Your task to perform on an android device: Set the phone to "Do not disturb". Image 0: 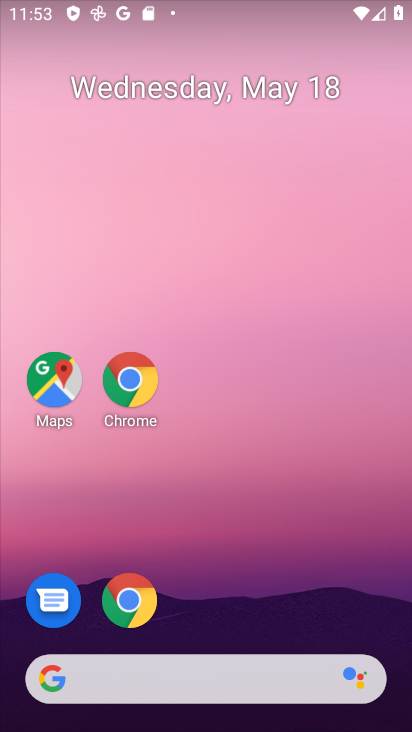
Step 0: drag from (303, 589) to (139, 155)
Your task to perform on an android device: Set the phone to "Do not disturb". Image 1: 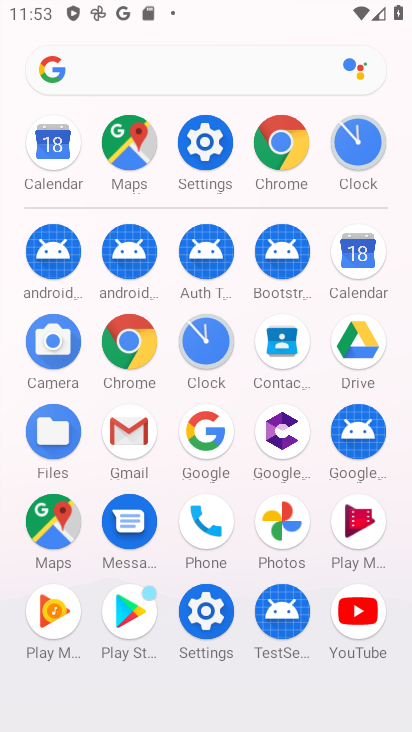
Step 1: drag from (253, 461) to (206, 29)
Your task to perform on an android device: Set the phone to "Do not disturb". Image 2: 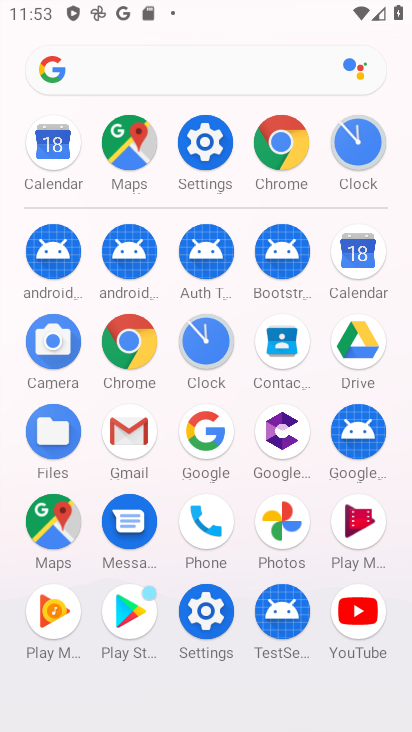
Step 2: click (212, 615)
Your task to perform on an android device: Set the phone to "Do not disturb". Image 3: 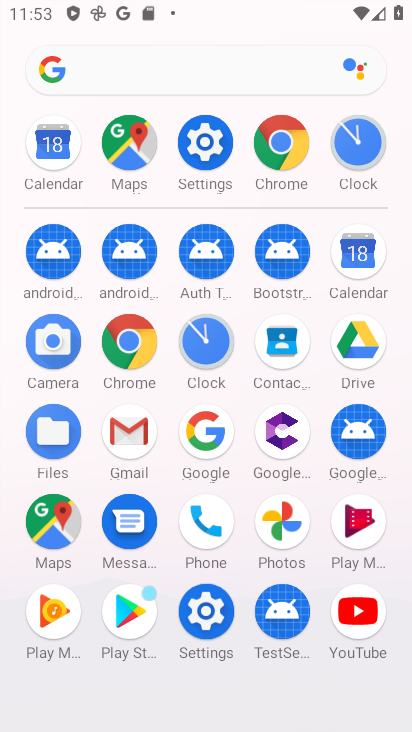
Step 3: click (209, 612)
Your task to perform on an android device: Set the phone to "Do not disturb". Image 4: 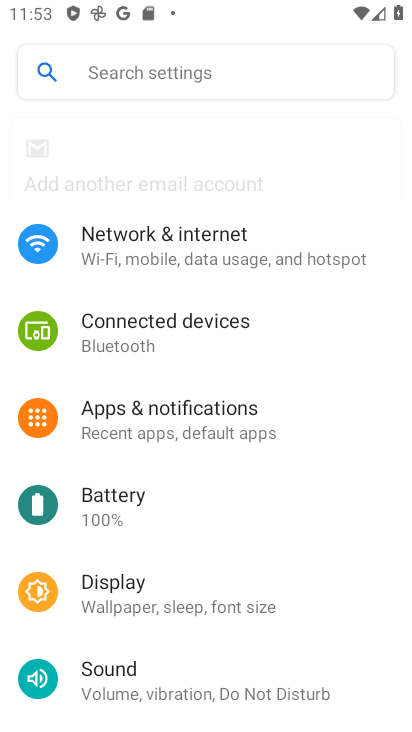
Step 4: click (208, 612)
Your task to perform on an android device: Set the phone to "Do not disturb". Image 5: 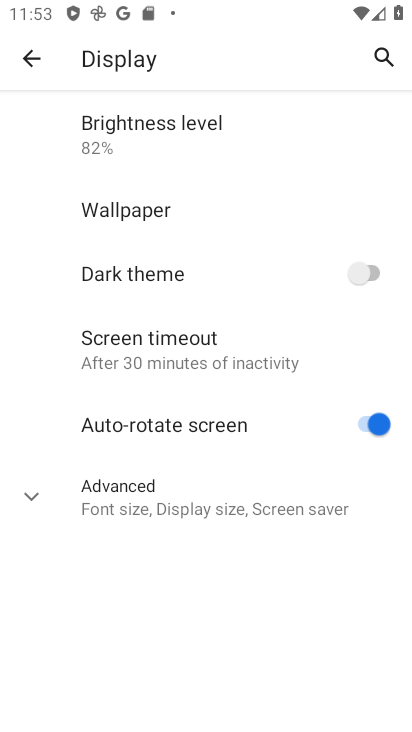
Step 5: click (27, 53)
Your task to perform on an android device: Set the phone to "Do not disturb". Image 6: 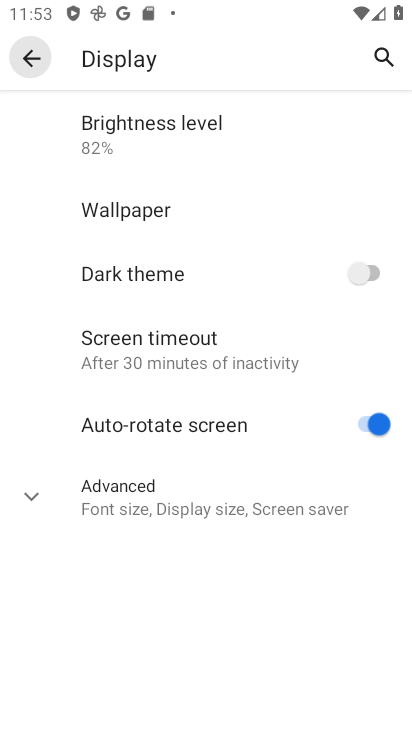
Step 6: click (26, 52)
Your task to perform on an android device: Set the phone to "Do not disturb". Image 7: 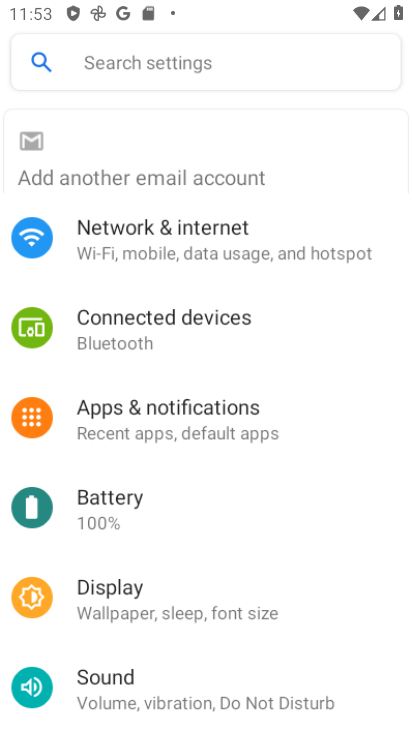
Step 7: click (24, 53)
Your task to perform on an android device: Set the phone to "Do not disturb". Image 8: 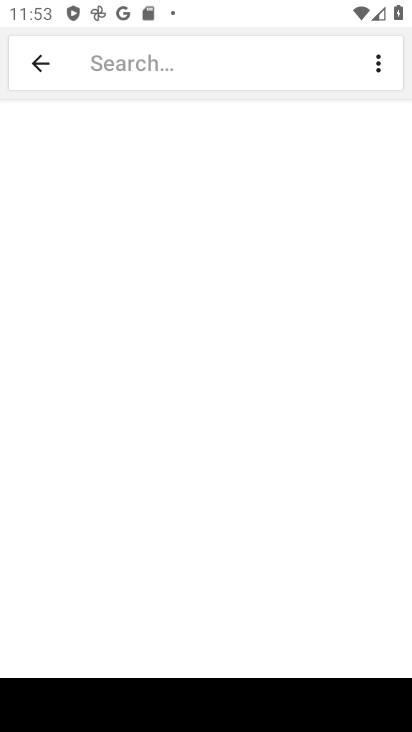
Step 8: click (33, 69)
Your task to perform on an android device: Set the phone to "Do not disturb". Image 9: 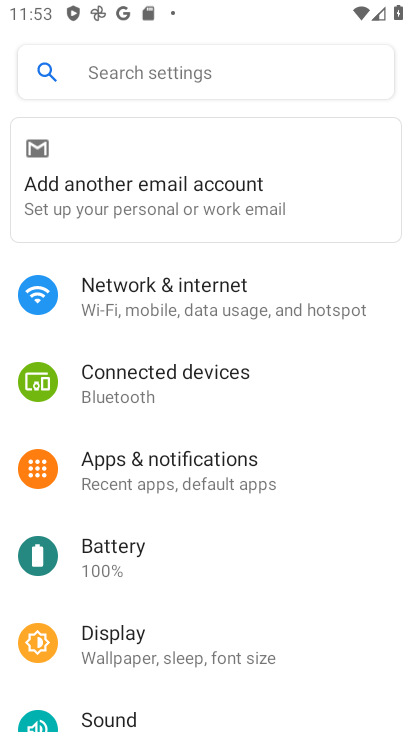
Step 9: drag from (230, 533) to (167, 238)
Your task to perform on an android device: Set the phone to "Do not disturb". Image 10: 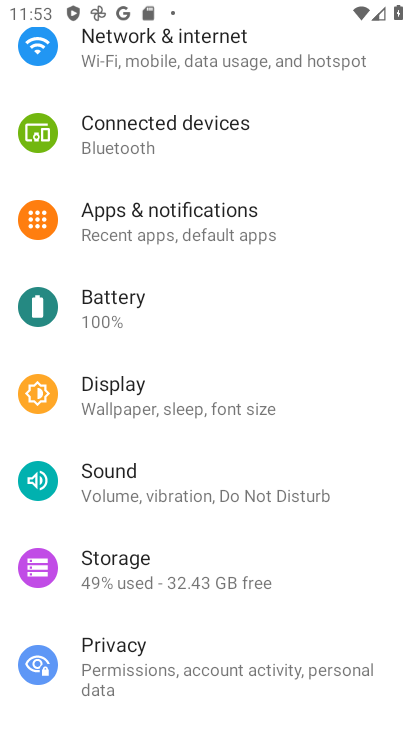
Step 10: click (121, 492)
Your task to perform on an android device: Set the phone to "Do not disturb". Image 11: 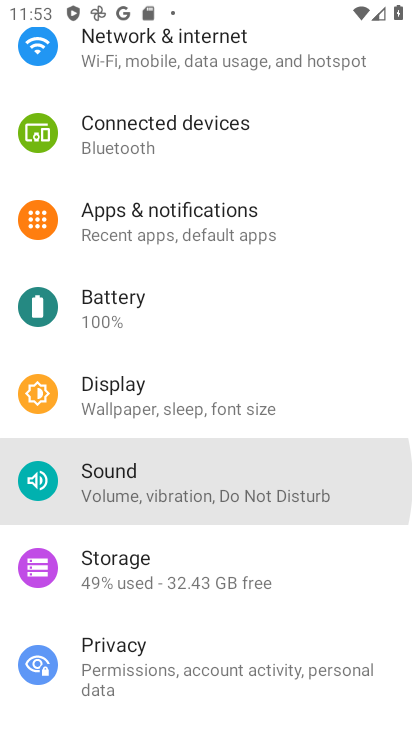
Step 11: click (121, 492)
Your task to perform on an android device: Set the phone to "Do not disturb". Image 12: 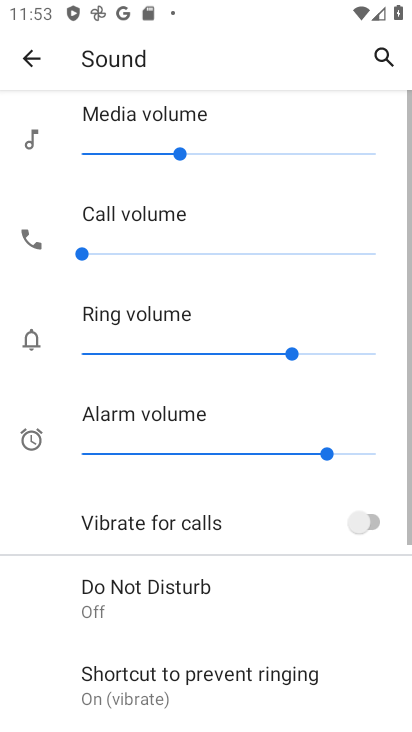
Step 12: task complete